Your task to perform on an android device: Open settings on Google Maps Image 0: 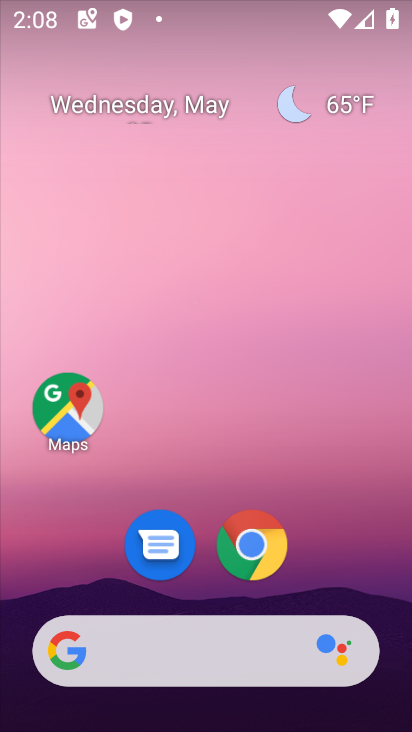
Step 0: click (67, 413)
Your task to perform on an android device: Open settings on Google Maps Image 1: 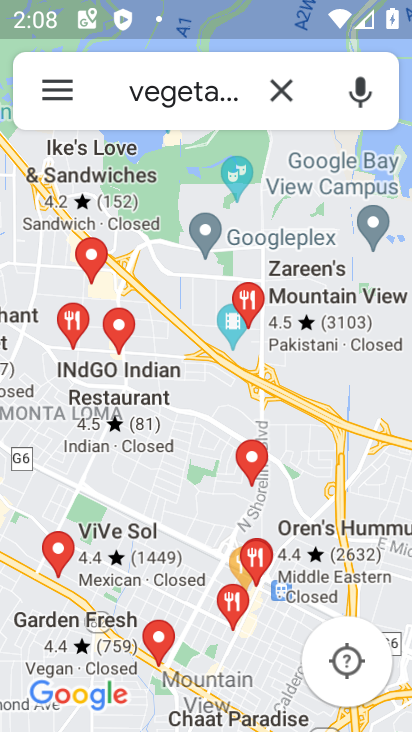
Step 1: click (57, 76)
Your task to perform on an android device: Open settings on Google Maps Image 2: 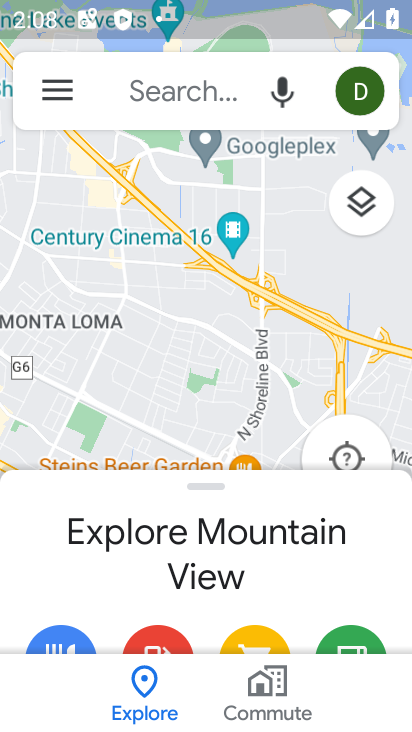
Step 2: click (57, 89)
Your task to perform on an android device: Open settings on Google Maps Image 3: 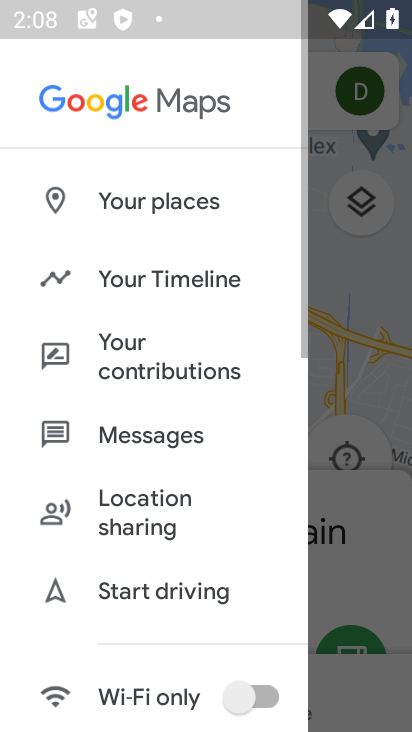
Step 3: drag from (231, 596) to (257, 38)
Your task to perform on an android device: Open settings on Google Maps Image 4: 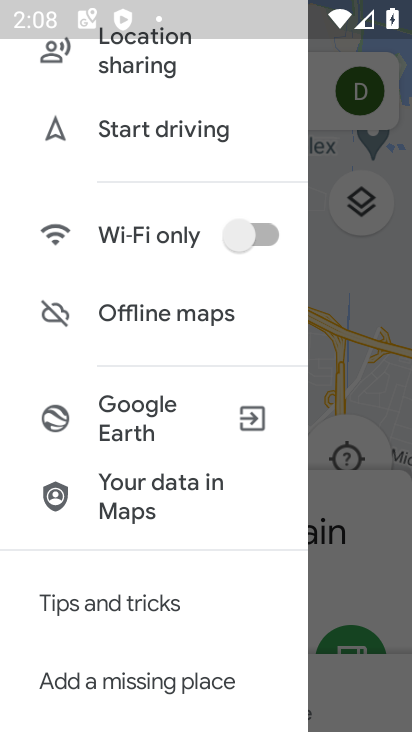
Step 4: drag from (189, 503) to (222, 81)
Your task to perform on an android device: Open settings on Google Maps Image 5: 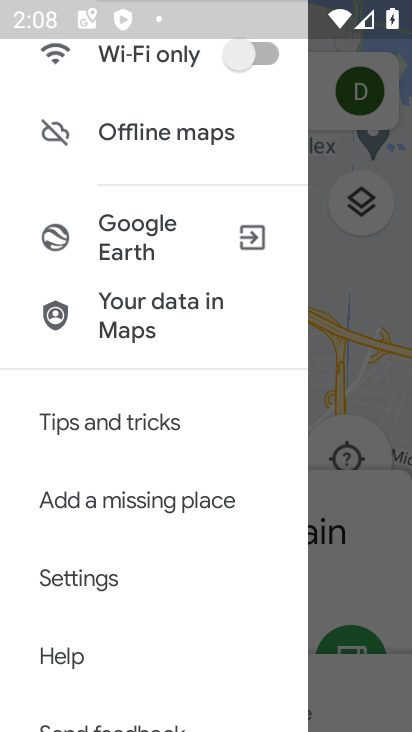
Step 5: click (134, 586)
Your task to perform on an android device: Open settings on Google Maps Image 6: 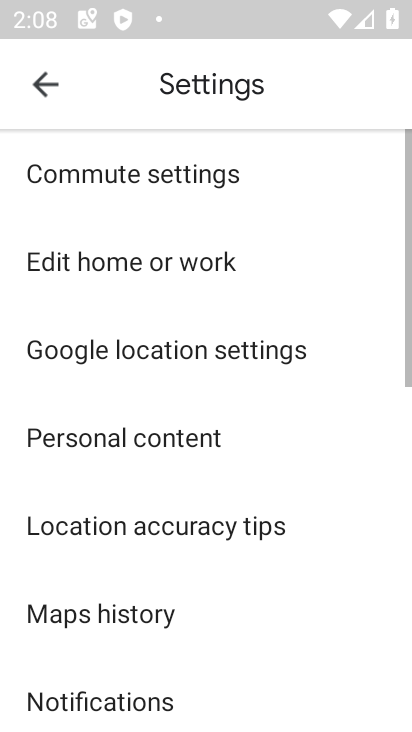
Step 6: task complete